Your task to perform on an android device: Is it going to rain this weekend? Image 0: 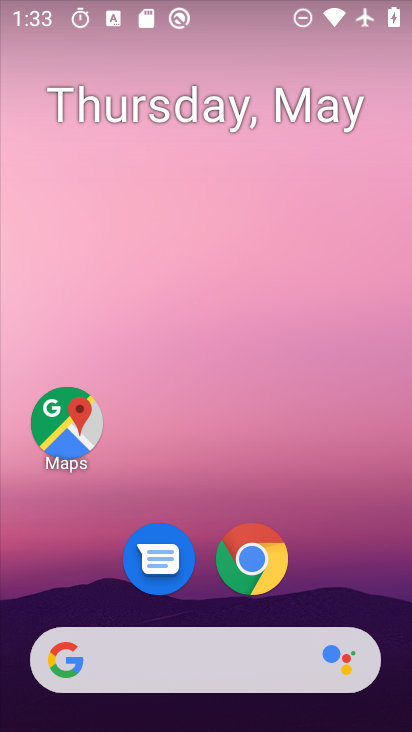
Step 0: drag from (218, 628) to (228, 154)
Your task to perform on an android device: Is it going to rain this weekend? Image 1: 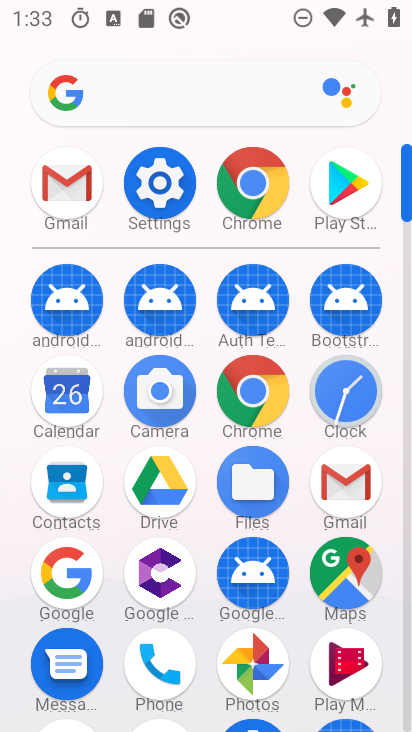
Step 1: click (84, 586)
Your task to perform on an android device: Is it going to rain this weekend? Image 2: 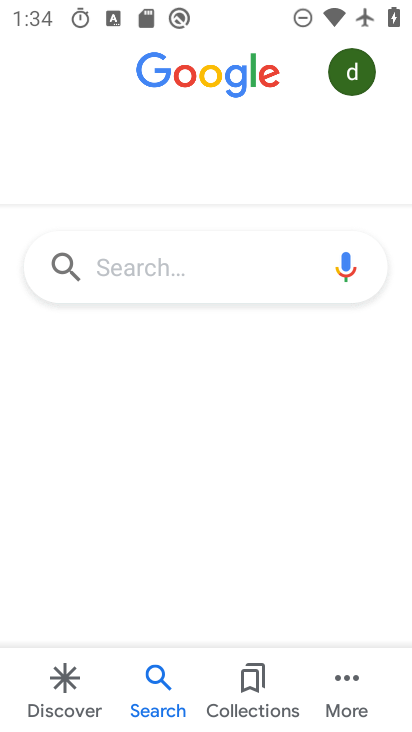
Step 2: click (227, 264)
Your task to perform on an android device: Is it going to rain this weekend? Image 3: 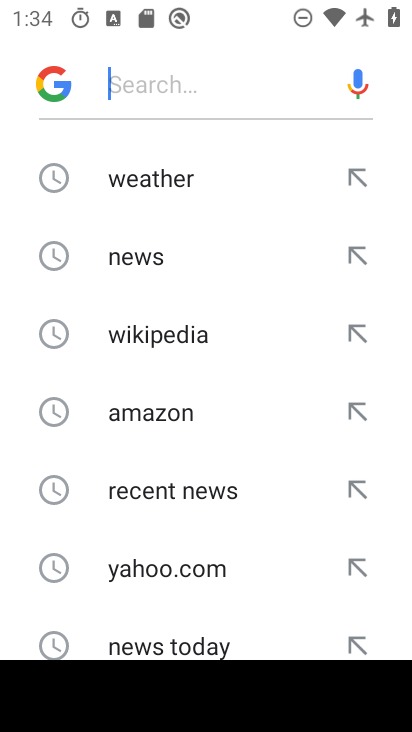
Step 3: click (209, 176)
Your task to perform on an android device: Is it going to rain this weekend? Image 4: 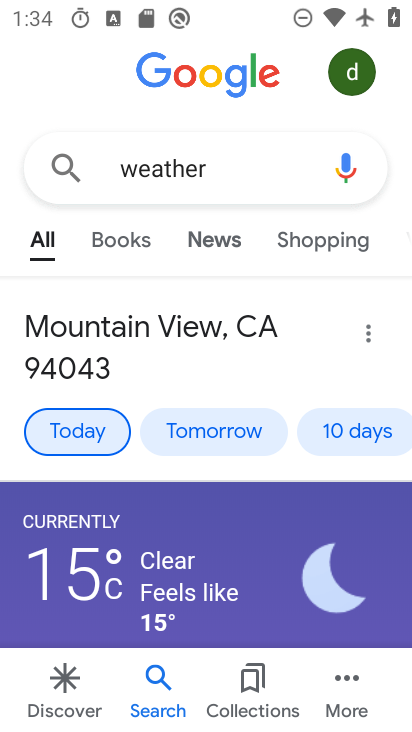
Step 4: task complete